Your task to perform on an android device: Show me popular videos on Youtube Image 0: 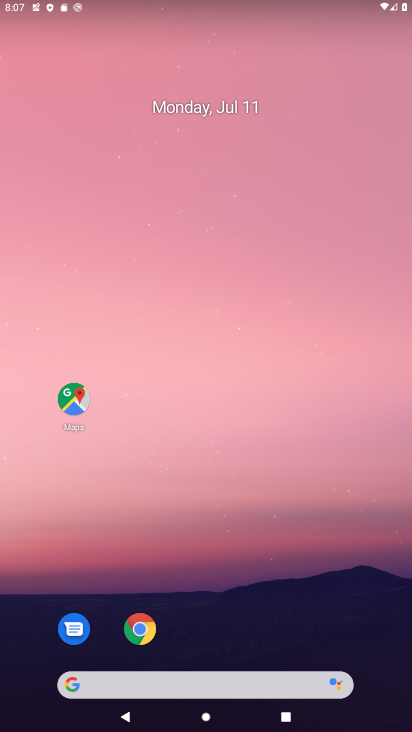
Step 0: drag from (251, 638) to (253, 136)
Your task to perform on an android device: Show me popular videos on Youtube Image 1: 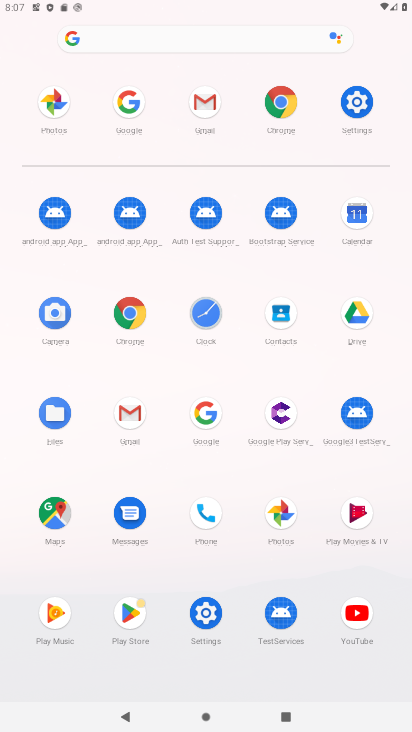
Step 1: click (355, 608)
Your task to perform on an android device: Show me popular videos on Youtube Image 2: 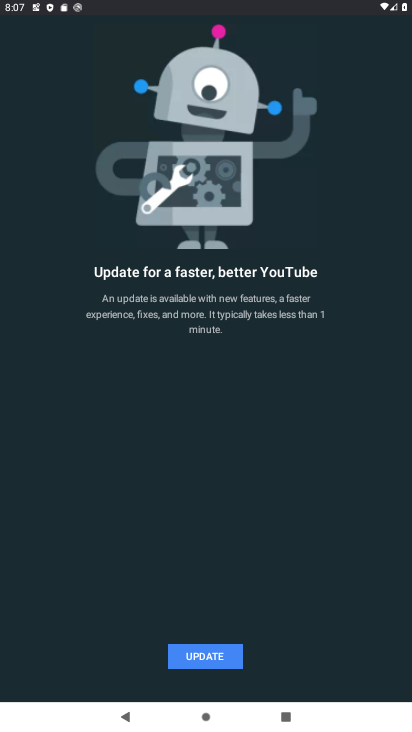
Step 2: click (229, 651)
Your task to perform on an android device: Show me popular videos on Youtube Image 3: 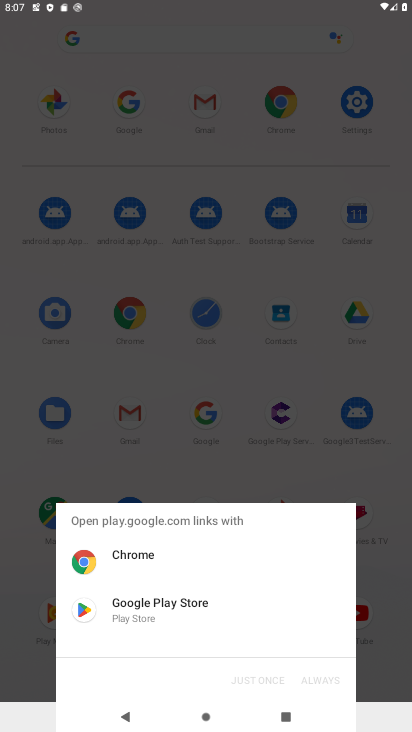
Step 3: click (137, 611)
Your task to perform on an android device: Show me popular videos on Youtube Image 4: 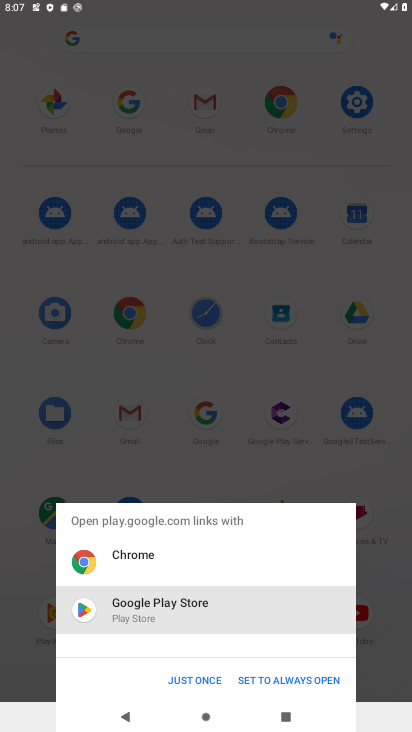
Step 4: click (191, 678)
Your task to perform on an android device: Show me popular videos on Youtube Image 5: 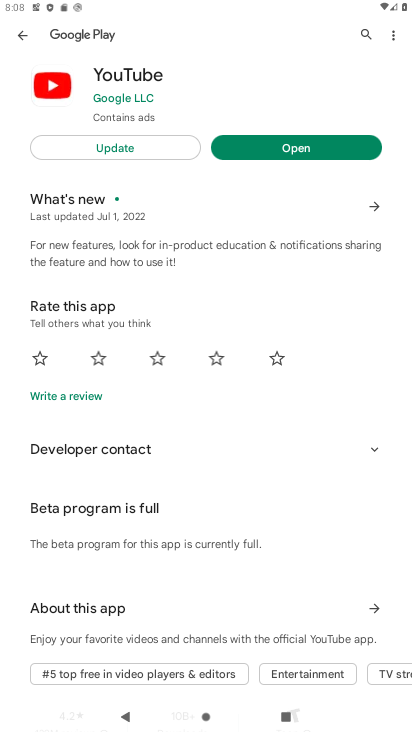
Step 5: click (158, 144)
Your task to perform on an android device: Show me popular videos on Youtube Image 6: 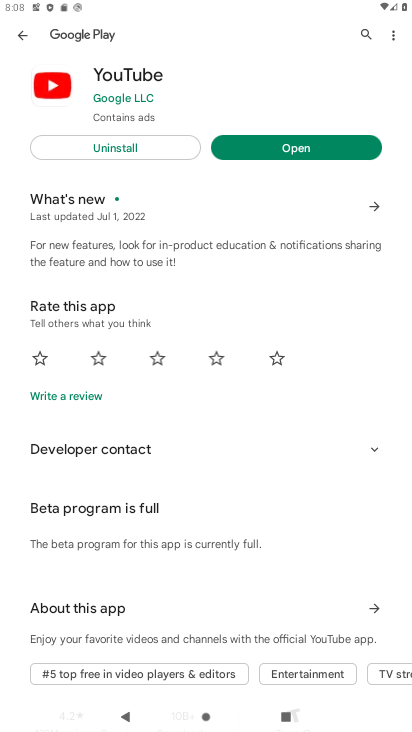
Step 6: click (274, 152)
Your task to perform on an android device: Show me popular videos on Youtube Image 7: 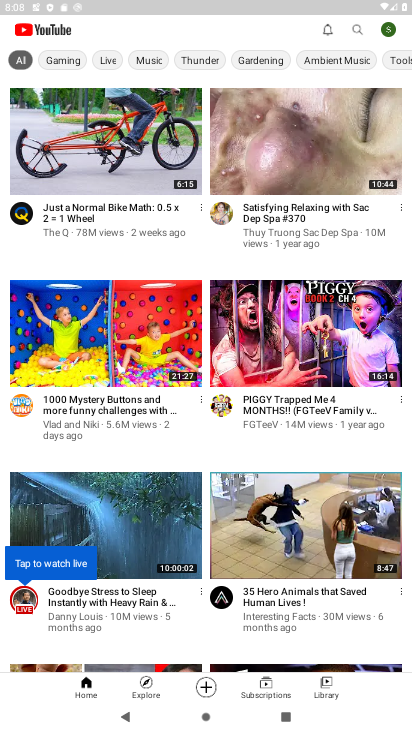
Step 7: task complete